Your task to perform on an android device: turn off smart reply in the gmail app Image 0: 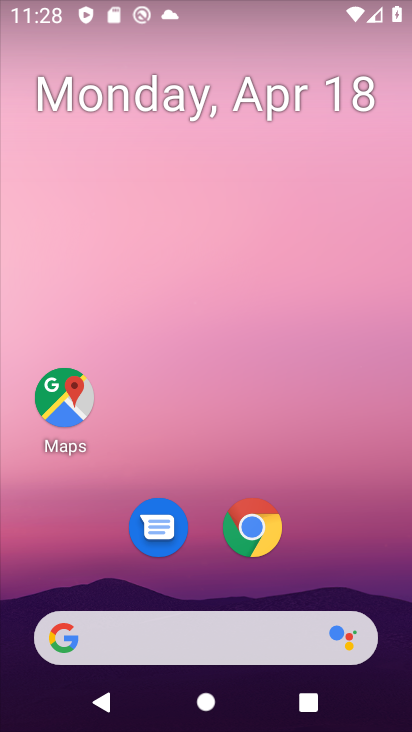
Step 0: drag from (187, 622) to (408, 51)
Your task to perform on an android device: turn off smart reply in the gmail app Image 1: 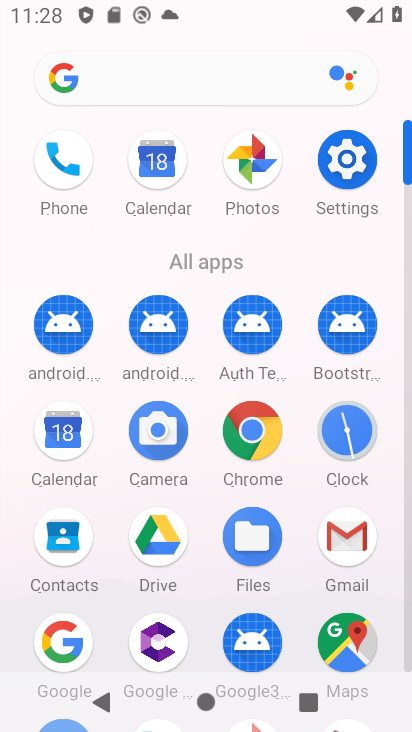
Step 1: click (356, 547)
Your task to perform on an android device: turn off smart reply in the gmail app Image 2: 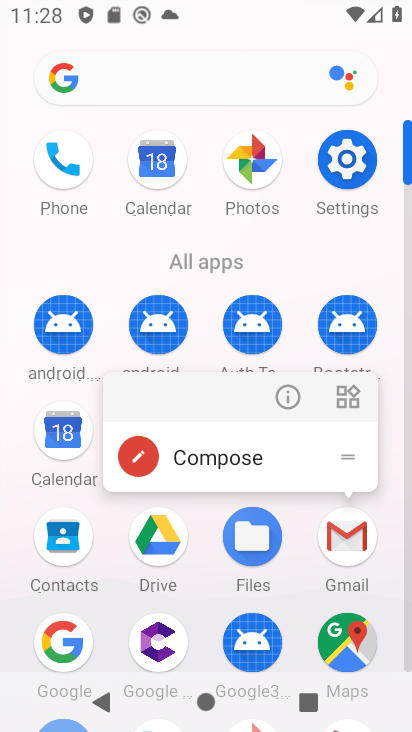
Step 2: click (356, 547)
Your task to perform on an android device: turn off smart reply in the gmail app Image 3: 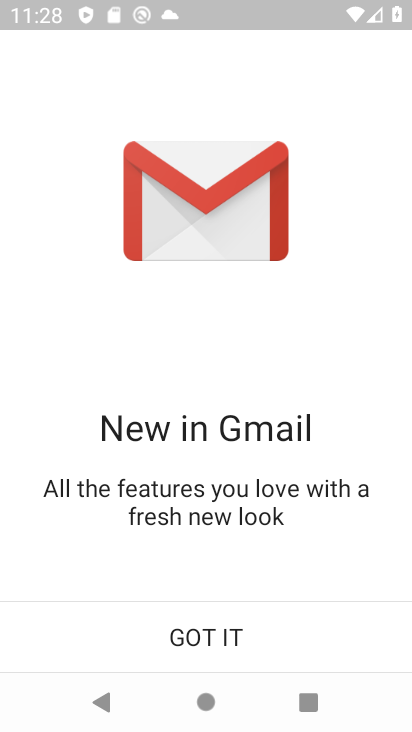
Step 3: click (199, 640)
Your task to perform on an android device: turn off smart reply in the gmail app Image 4: 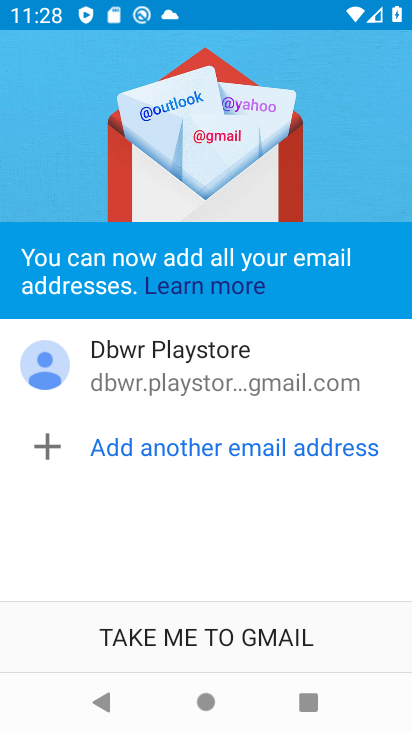
Step 4: click (206, 632)
Your task to perform on an android device: turn off smart reply in the gmail app Image 5: 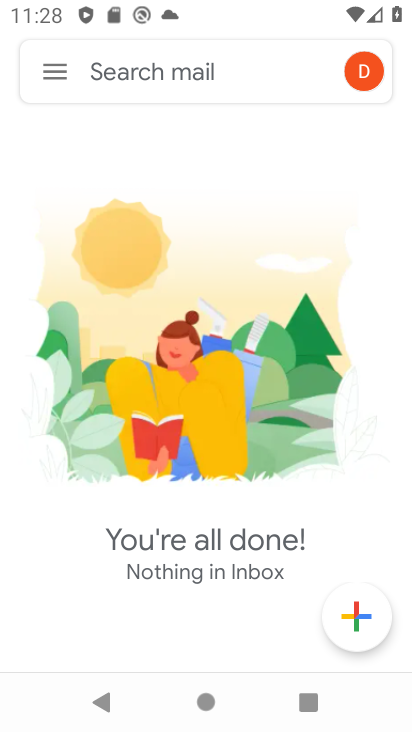
Step 5: click (52, 85)
Your task to perform on an android device: turn off smart reply in the gmail app Image 6: 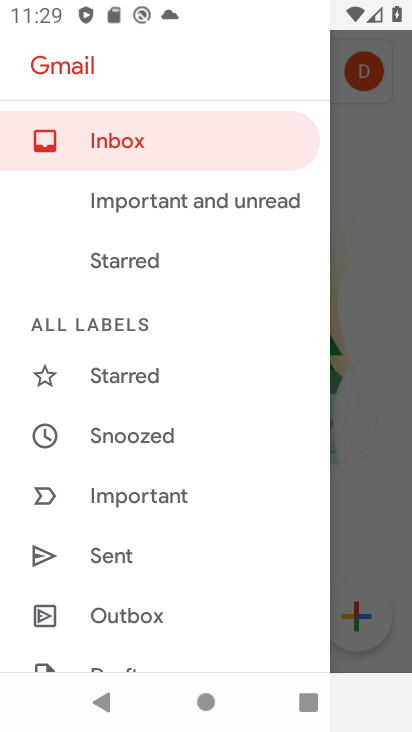
Step 6: drag from (138, 474) to (308, 36)
Your task to perform on an android device: turn off smart reply in the gmail app Image 7: 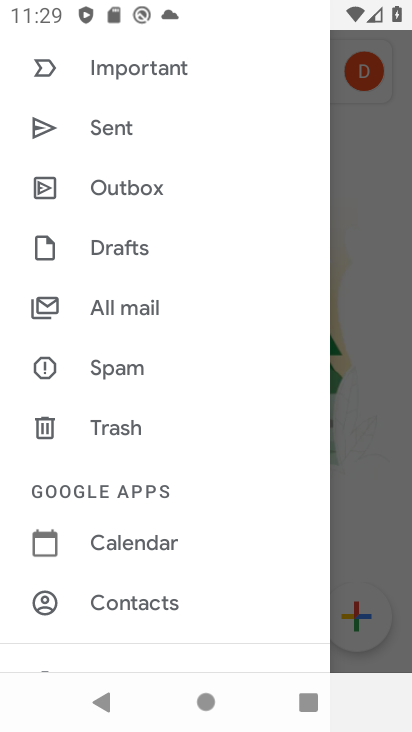
Step 7: drag from (191, 336) to (240, 239)
Your task to perform on an android device: turn off smart reply in the gmail app Image 8: 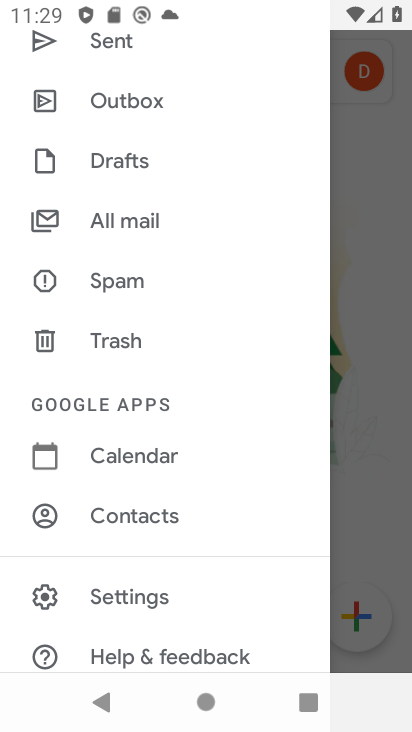
Step 8: drag from (157, 525) to (268, 281)
Your task to perform on an android device: turn off smart reply in the gmail app Image 9: 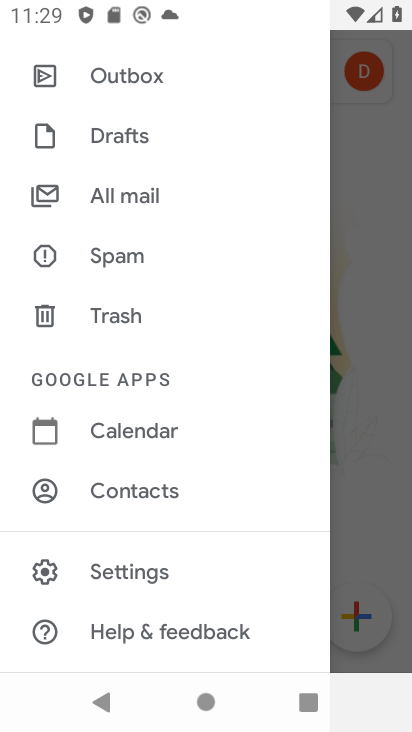
Step 9: click (131, 568)
Your task to perform on an android device: turn off smart reply in the gmail app Image 10: 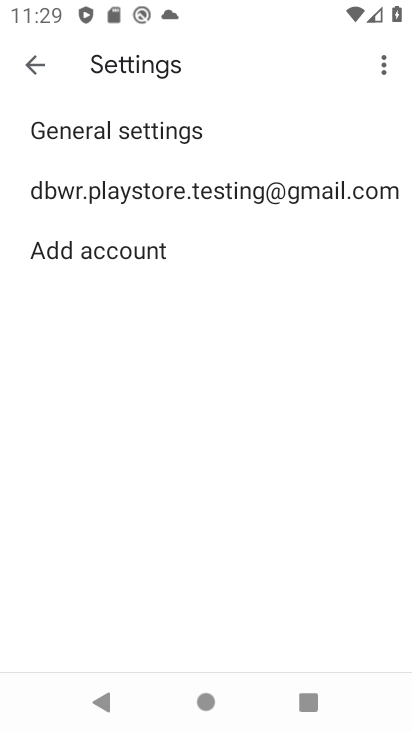
Step 10: click (114, 179)
Your task to perform on an android device: turn off smart reply in the gmail app Image 11: 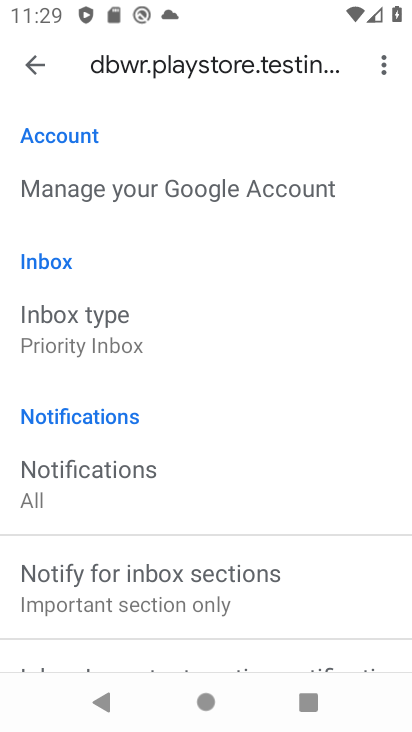
Step 11: drag from (78, 449) to (257, 108)
Your task to perform on an android device: turn off smart reply in the gmail app Image 12: 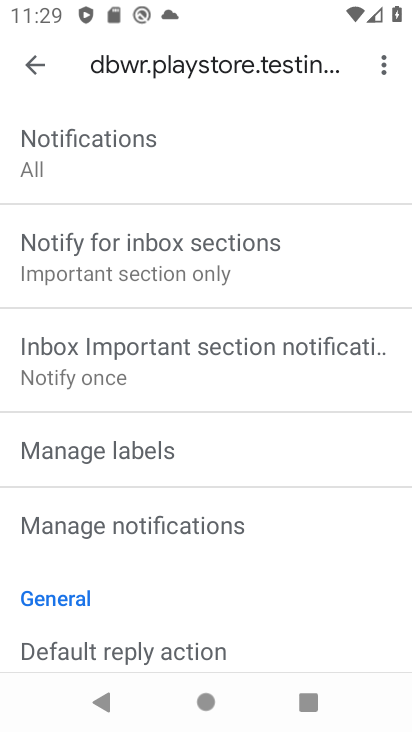
Step 12: drag from (161, 493) to (367, 111)
Your task to perform on an android device: turn off smart reply in the gmail app Image 13: 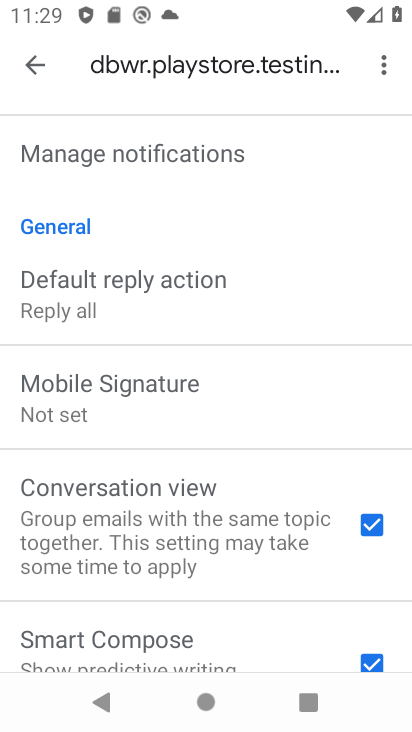
Step 13: click (193, 305)
Your task to perform on an android device: turn off smart reply in the gmail app Image 14: 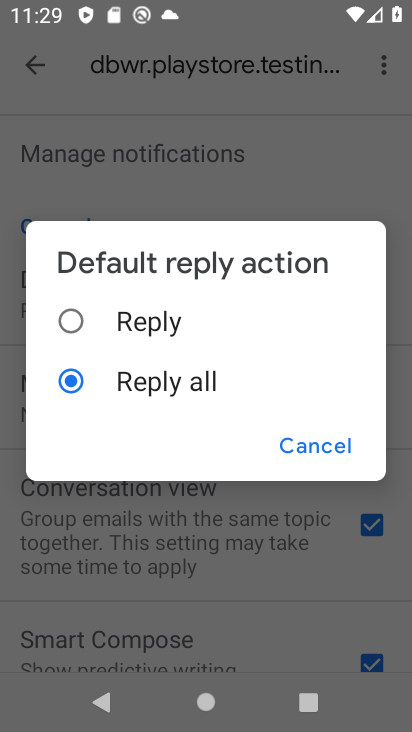
Step 14: task complete